Your task to perform on an android device: Open Youtube and go to the subscriptions tab Image 0: 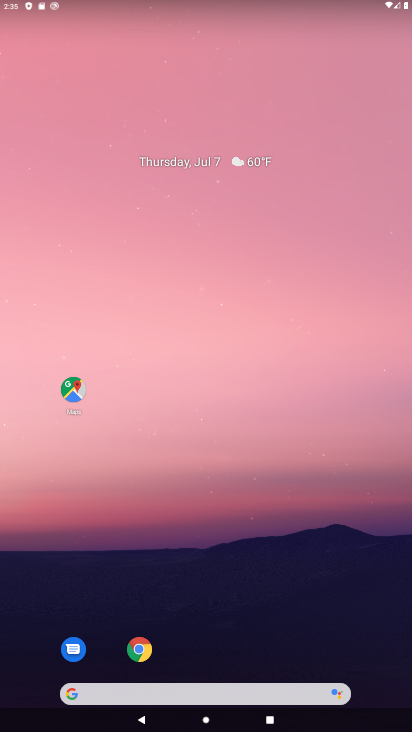
Step 0: drag from (173, 582) to (321, 100)
Your task to perform on an android device: Open Youtube and go to the subscriptions tab Image 1: 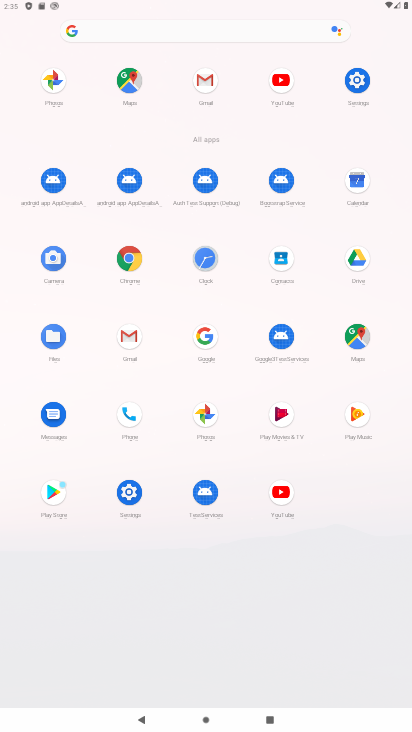
Step 1: click (280, 500)
Your task to perform on an android device: Open Youtube and go to the subscriptions tab Image 2: 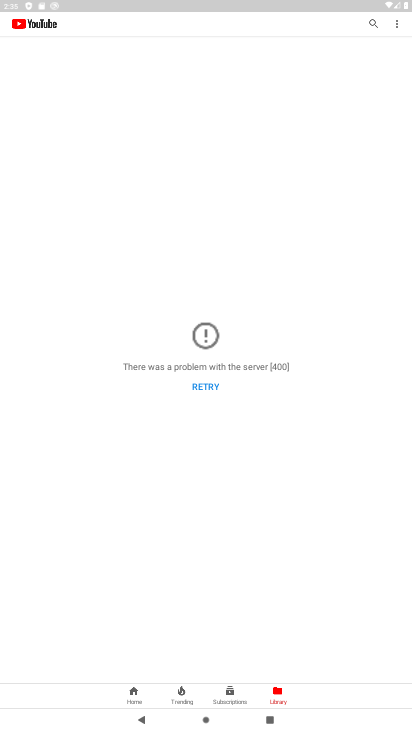
Step 2: click (237, 688)
Your task to perform on an android device: Open Youtube and go to the subscriptions tab Image 3: 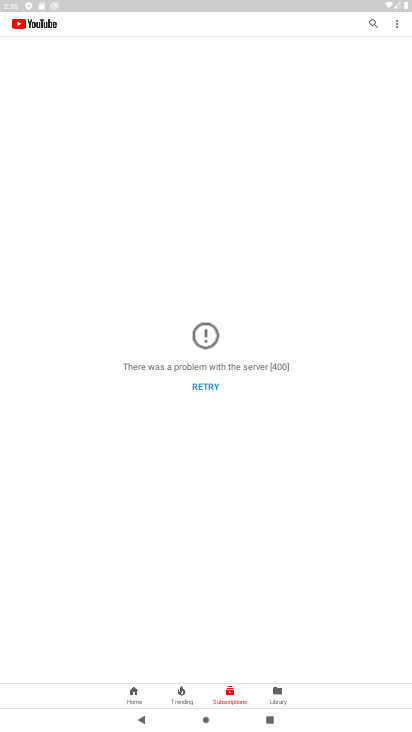
Step 3: task complete